Your task to perform on an android device: Open Google Maps Image 0: 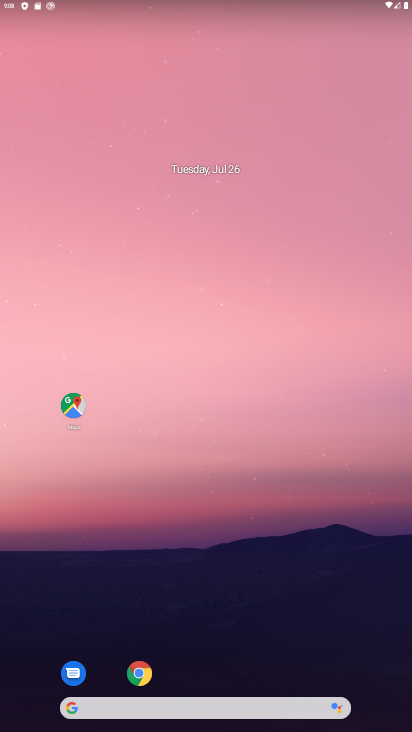
Step 0: click (73, 406)
Your task to perform on an android device: Open Google Maps Image 1: 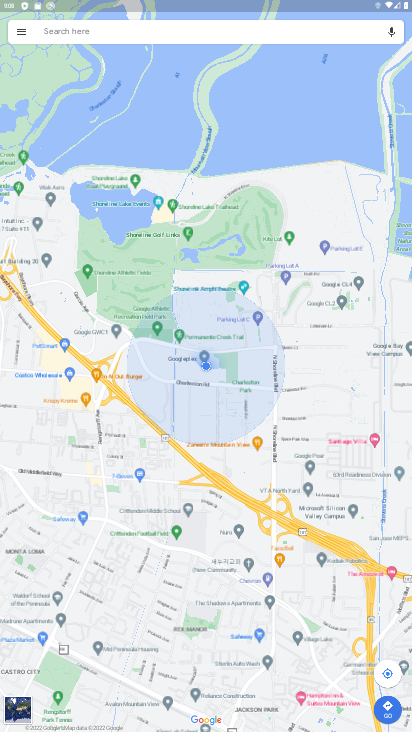
Step 1: task complete